Your task to perform on an android device: What's the weather? Image 0: 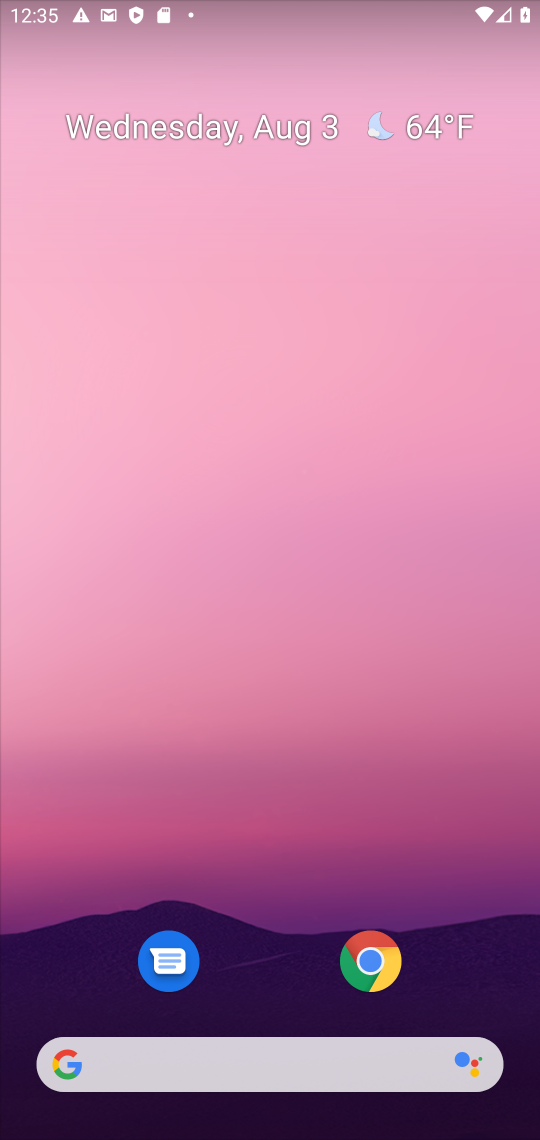
Step 0: click (239, 1059)
Your task to perform on an android device: What's the weather? Image 1: 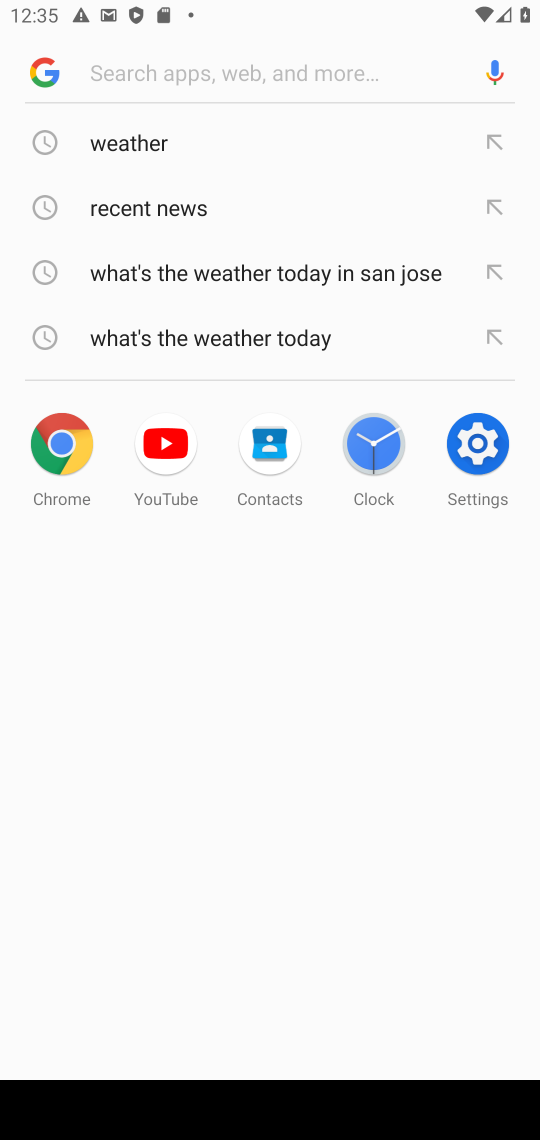
Step 1: click (129, 151)
Your task to perform on an android device: What's the weather? Image 2: 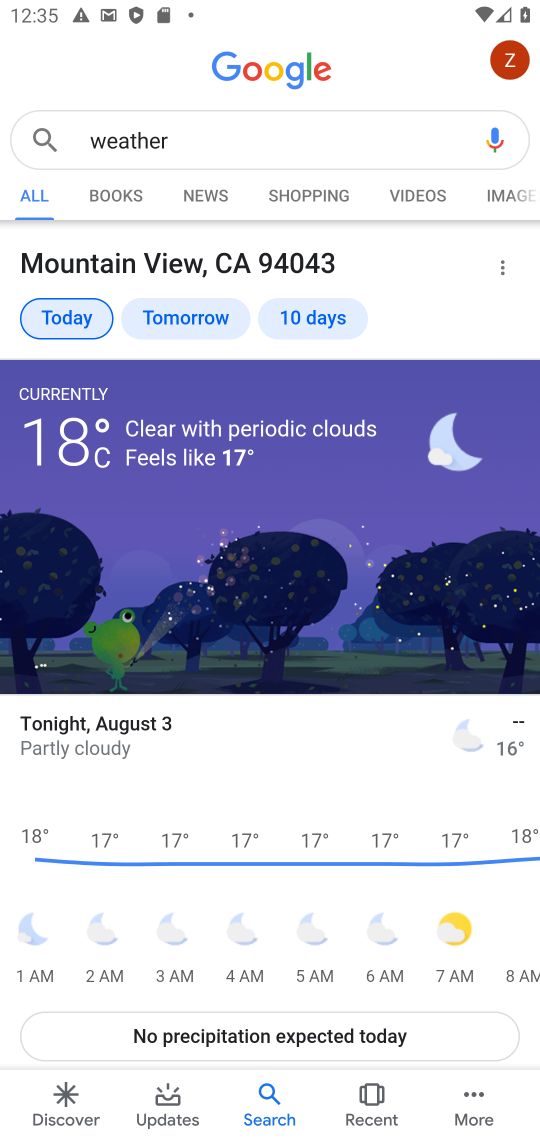
Step 2: task complete